Your task to perform on an android device: Open sound settings Image 0: 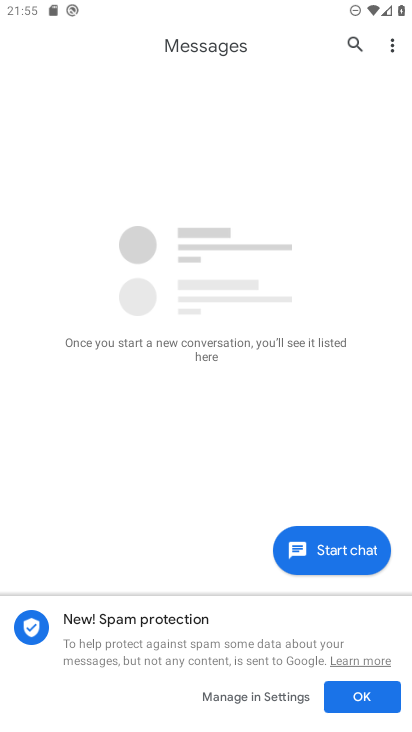
Step 0: press home button
Your task to perform on an android device: Open sound settings Image 1: 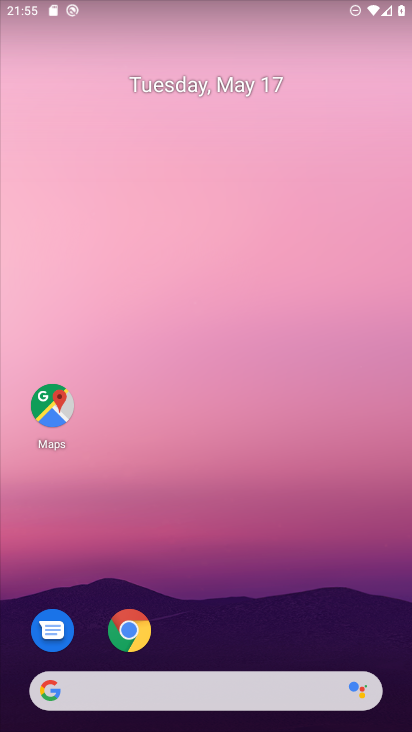
Step 1: drag from (334, 597) to (331, 220)
Your task to perform on an android device: Open sound settings Image 2: 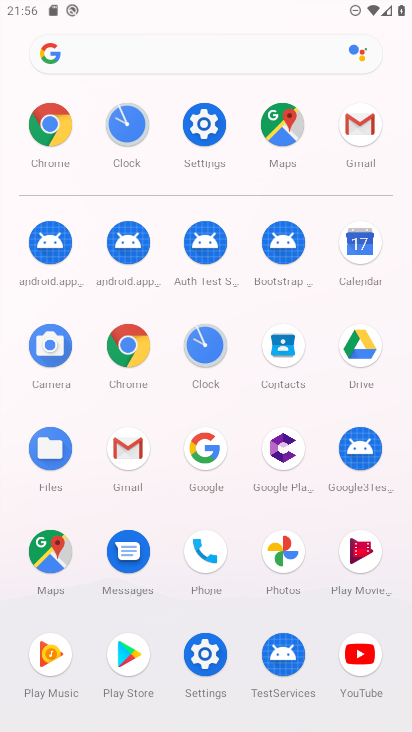
Step 2: click (220, 133)
Your task to perform on an android device: Open sound settings Image 3: 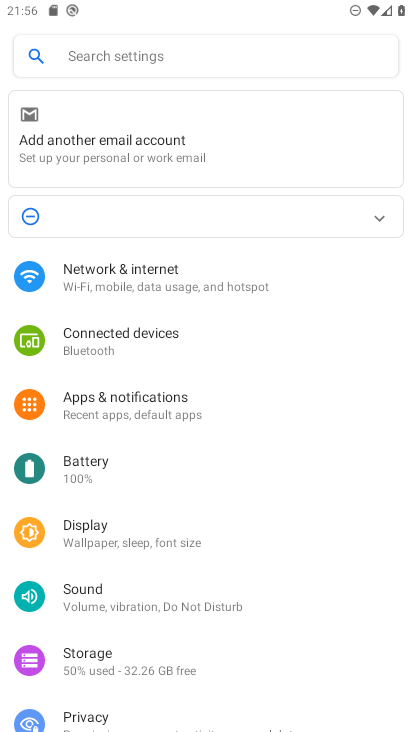
Step 3: drag from (295, 563) to (296, 444)
Your task to perform on an android device: Open sound settings Image 4: 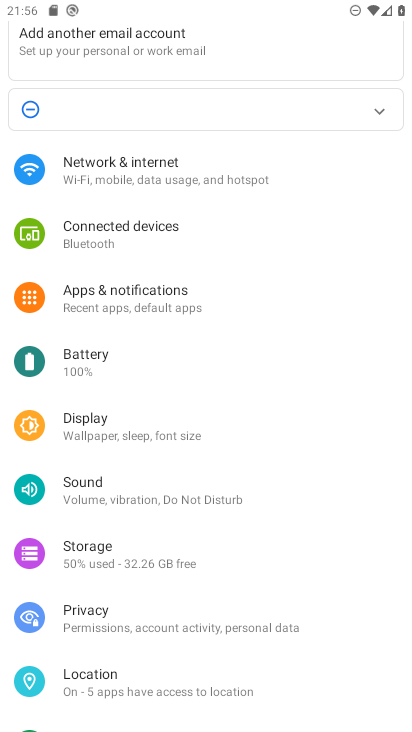
Step 4: drag from (323, 574) to (343, 371)
Your task to perform on an android device: Open sound settings Image 5: 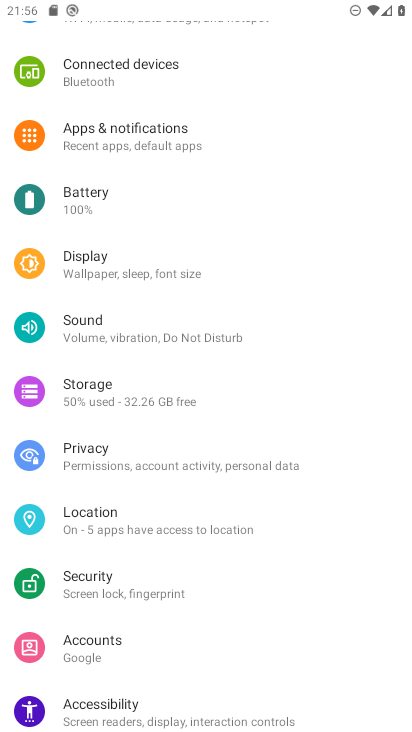
Step 5: drag from (329, 571) to (340, 344)
Your task to perform on an android device: Open sound settings Image 6: 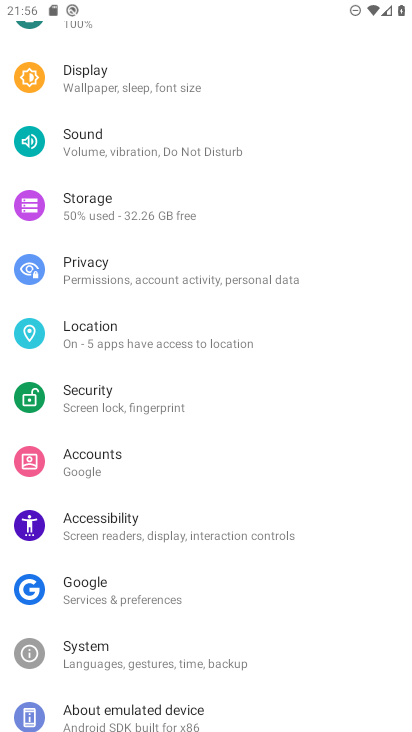
Step 6: drag from (341, 253) to (342, 445)
Your task to perform on an android device: Open sound settings Image 7: 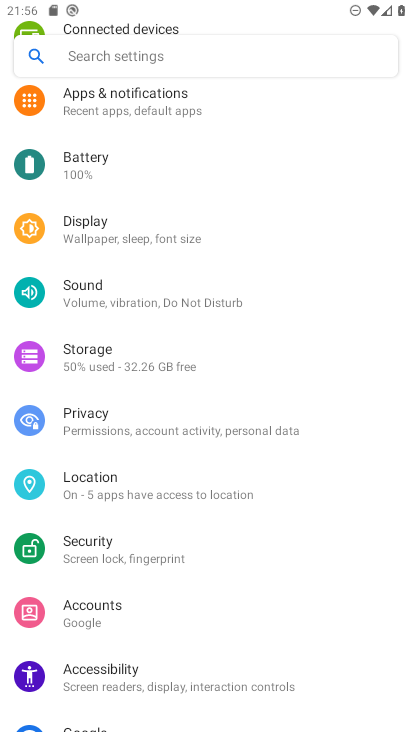
Step 7: click (232, 299)
Your task to perform on an android device: Open sound settings Image 8: 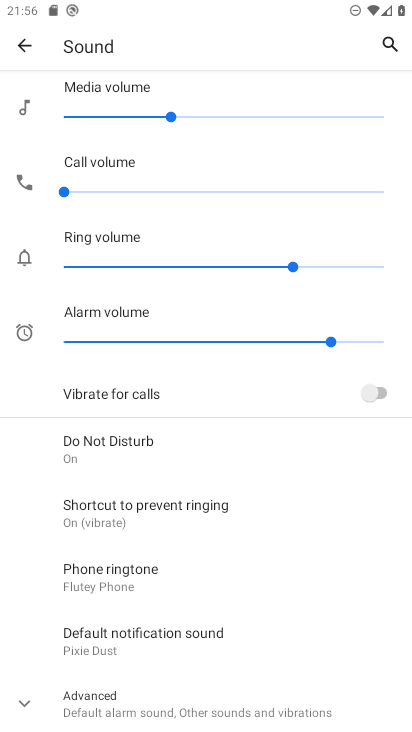
Step 8: task complete